Your task to perform on an android device: toggle priority inbox in the gmail app Image 0: 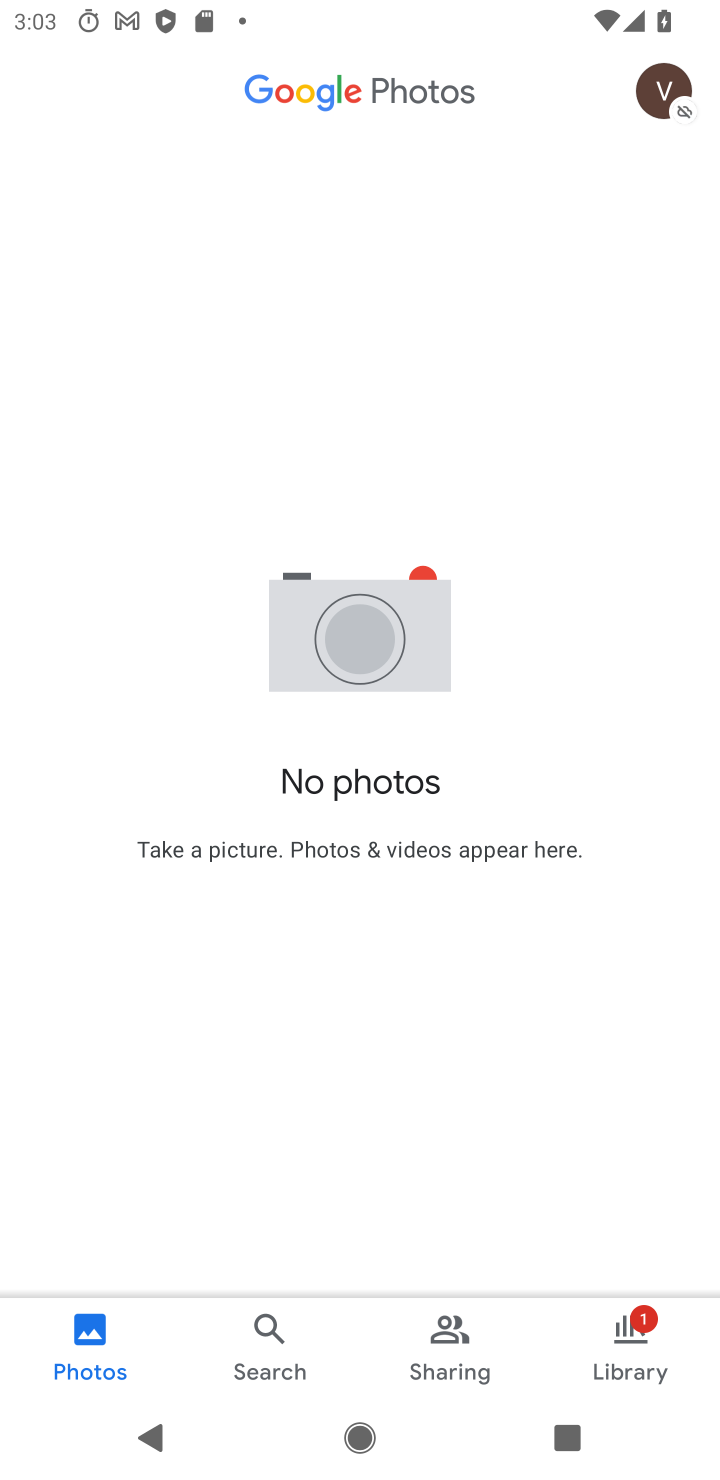
Step 0: press home button
Your task to perform on an android device: toggle priority inbox in the gmail app Image 1: 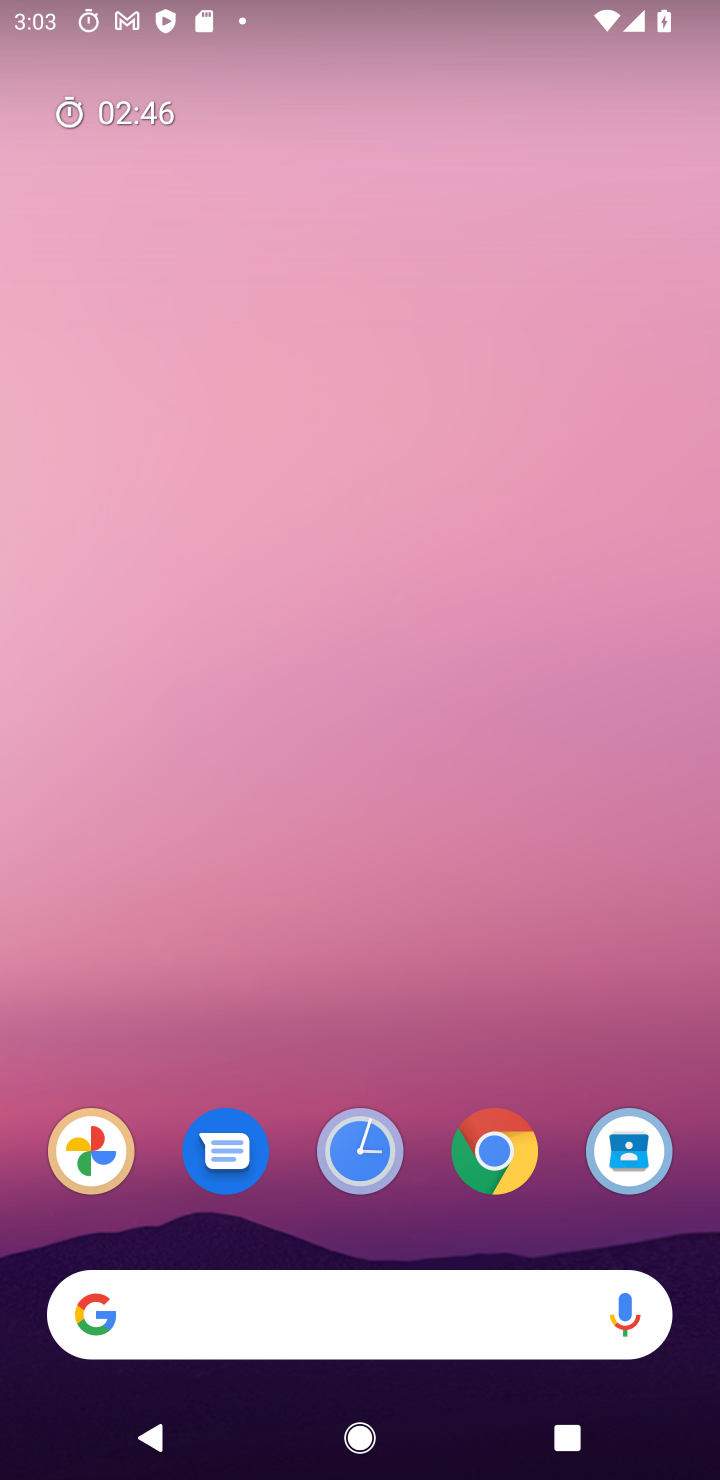
Step 1: drag from (517, 1063) to (303, 59)
Your task to perform on an android device: toggle priority inbox in the gmail app Image 2: 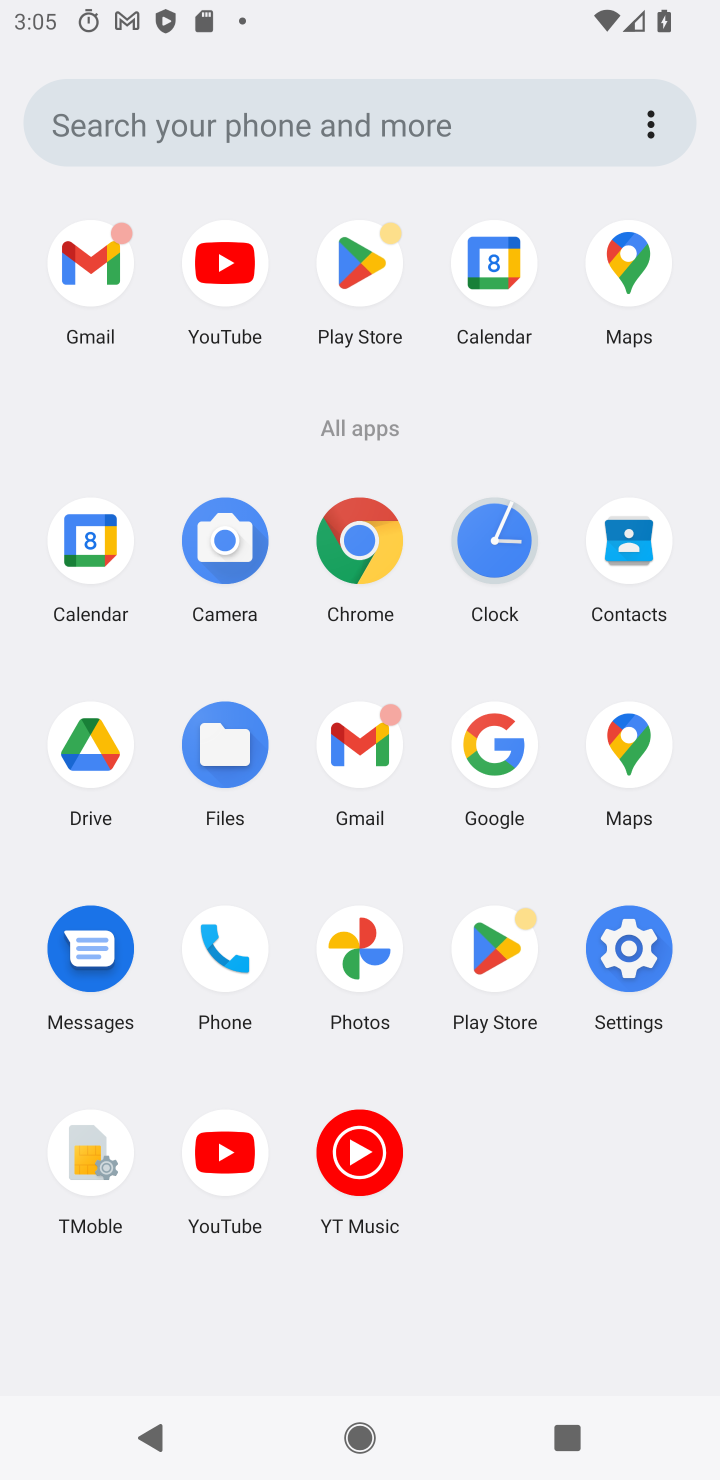
Step 2: click (362, 794)
Your task to perform on an android device: toggle priority inbox in the gmail app Image 3: 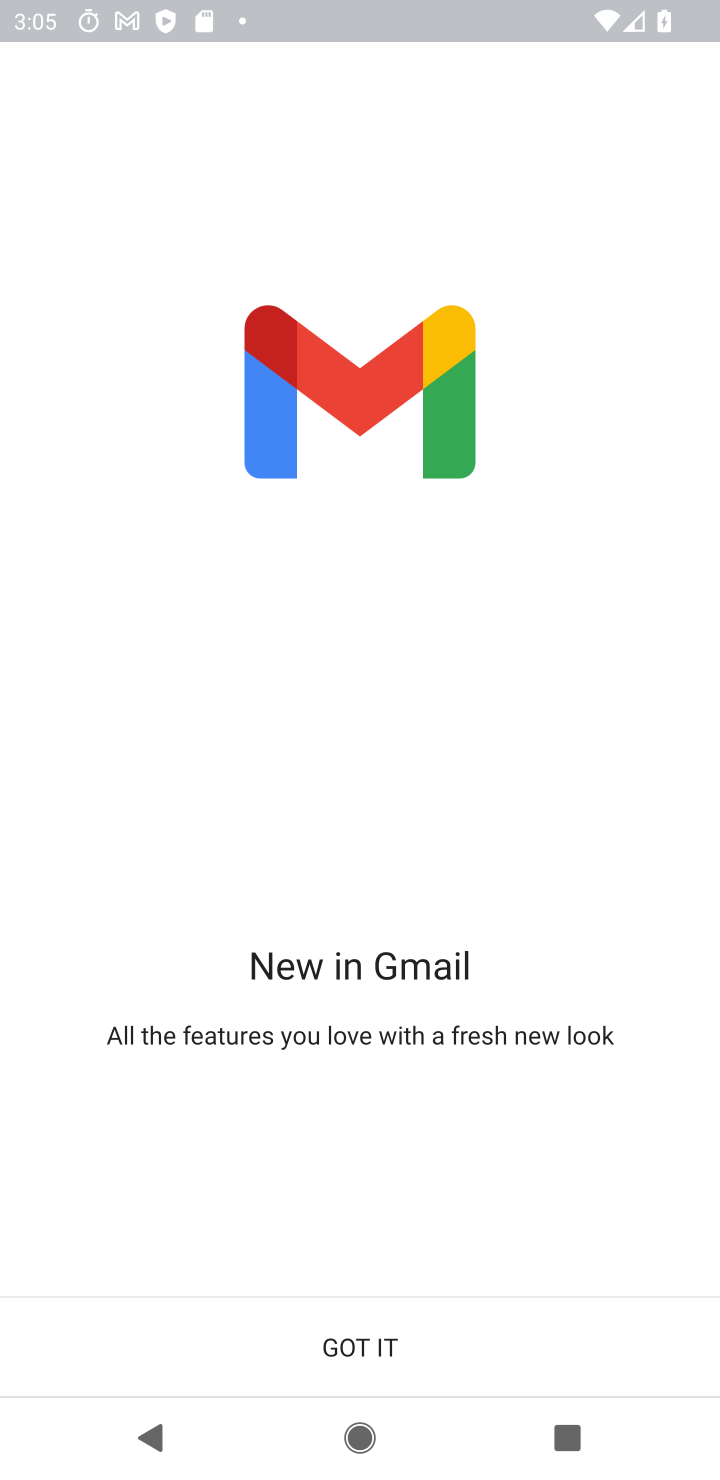
Step 3: click (354, 1366)
Your task to perform on an android device: toggle priority inbox in the gmail app Image 4: 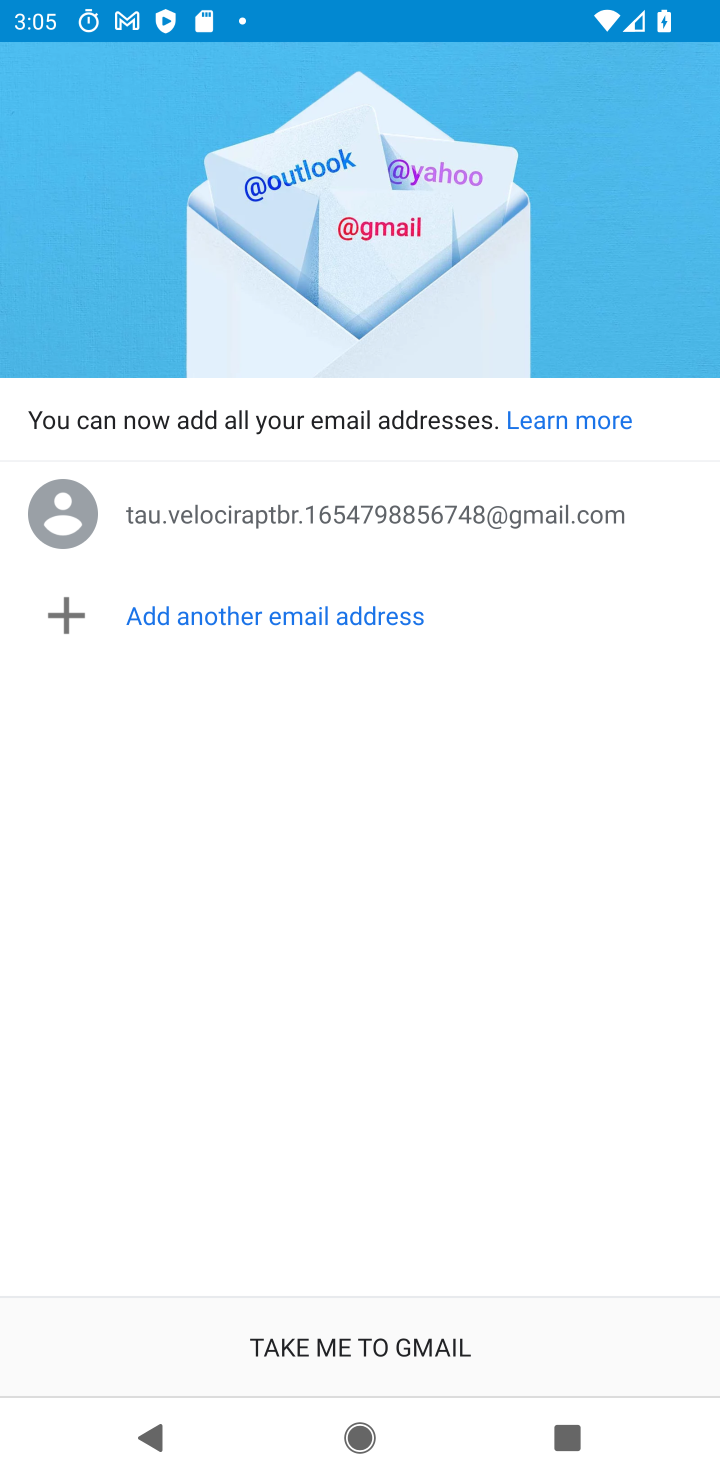
Step 4: click (354, 1366)
Your task to perform on an android device: toggle priority inbox in the gmail app Image 5: 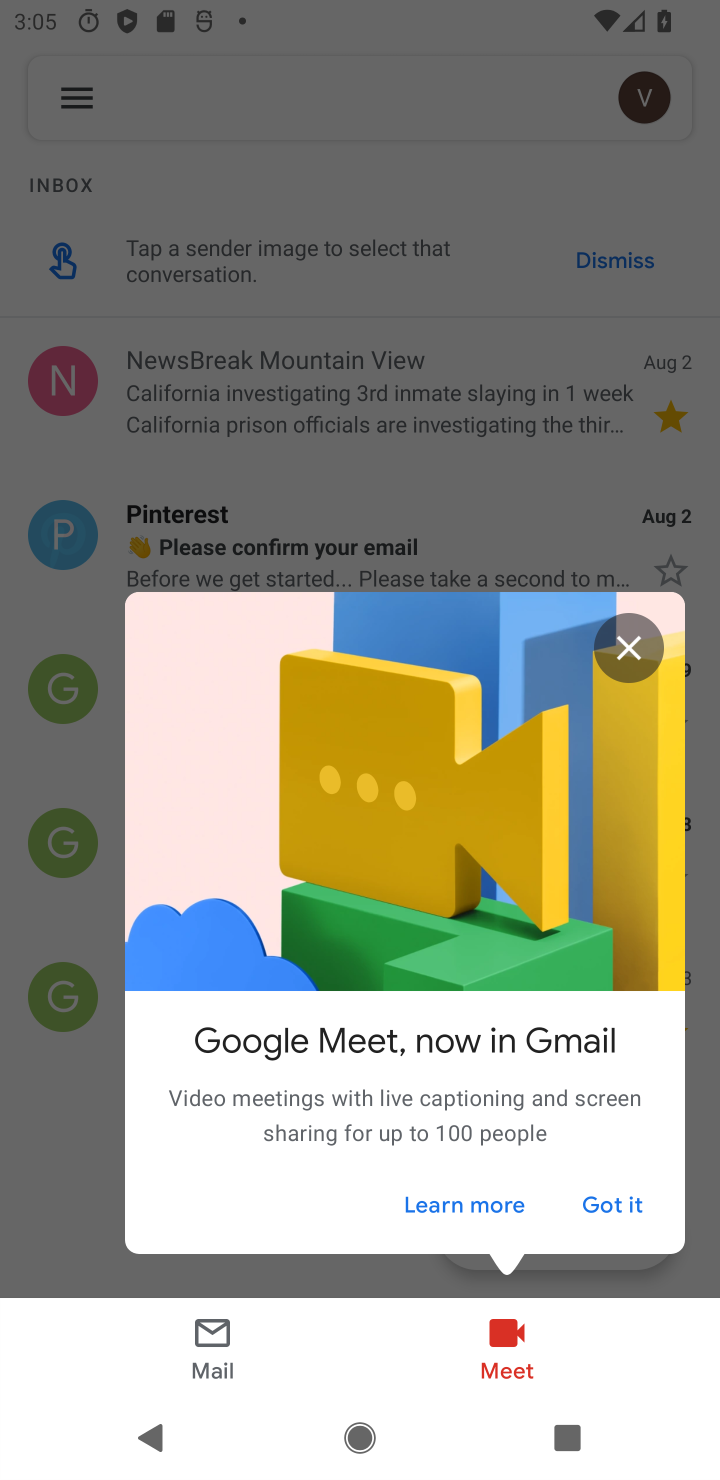
Step 5: click (609, 658)
Your task to perform on an android device: toggle priority inbox in the gmail app Image 6: 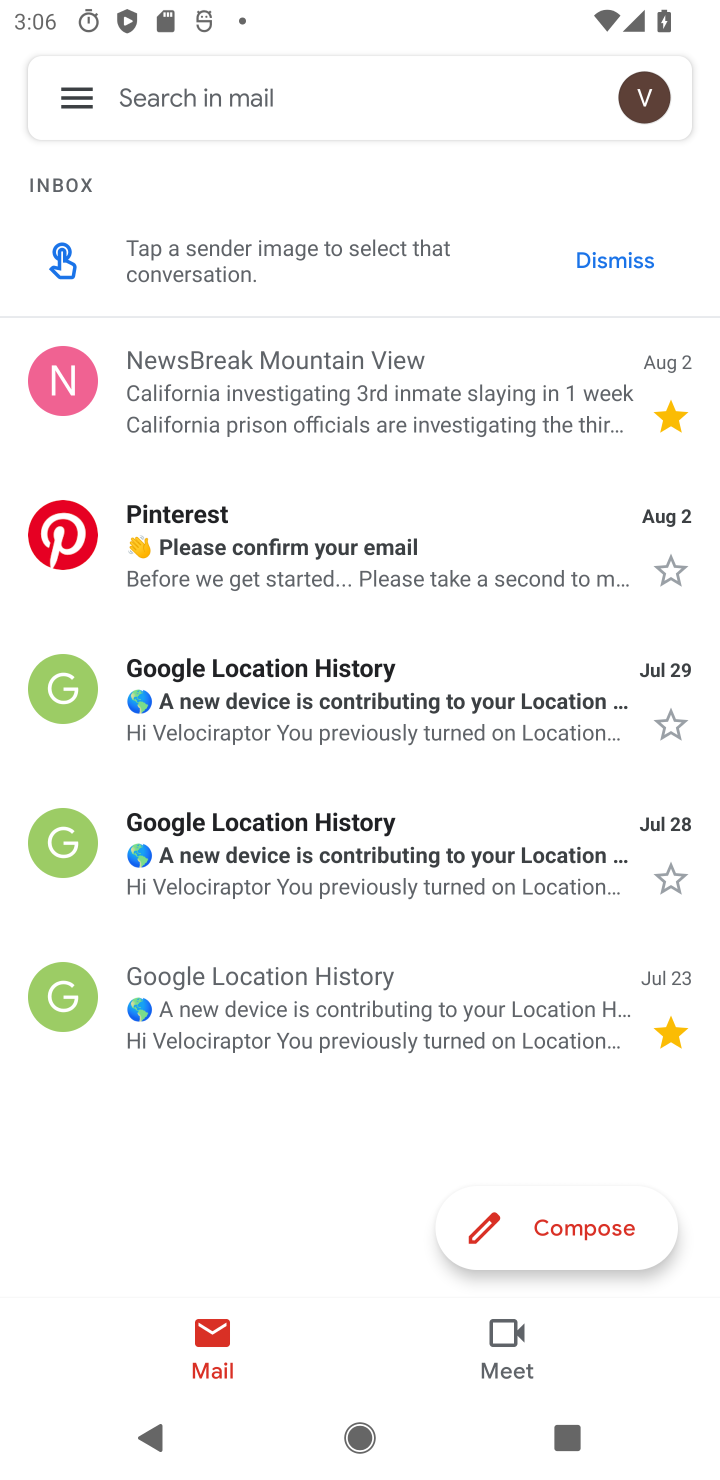
Step 6: click (85, 106)
Your task to perform on an android device: toggle priority inbox in the gmail app Image 7: 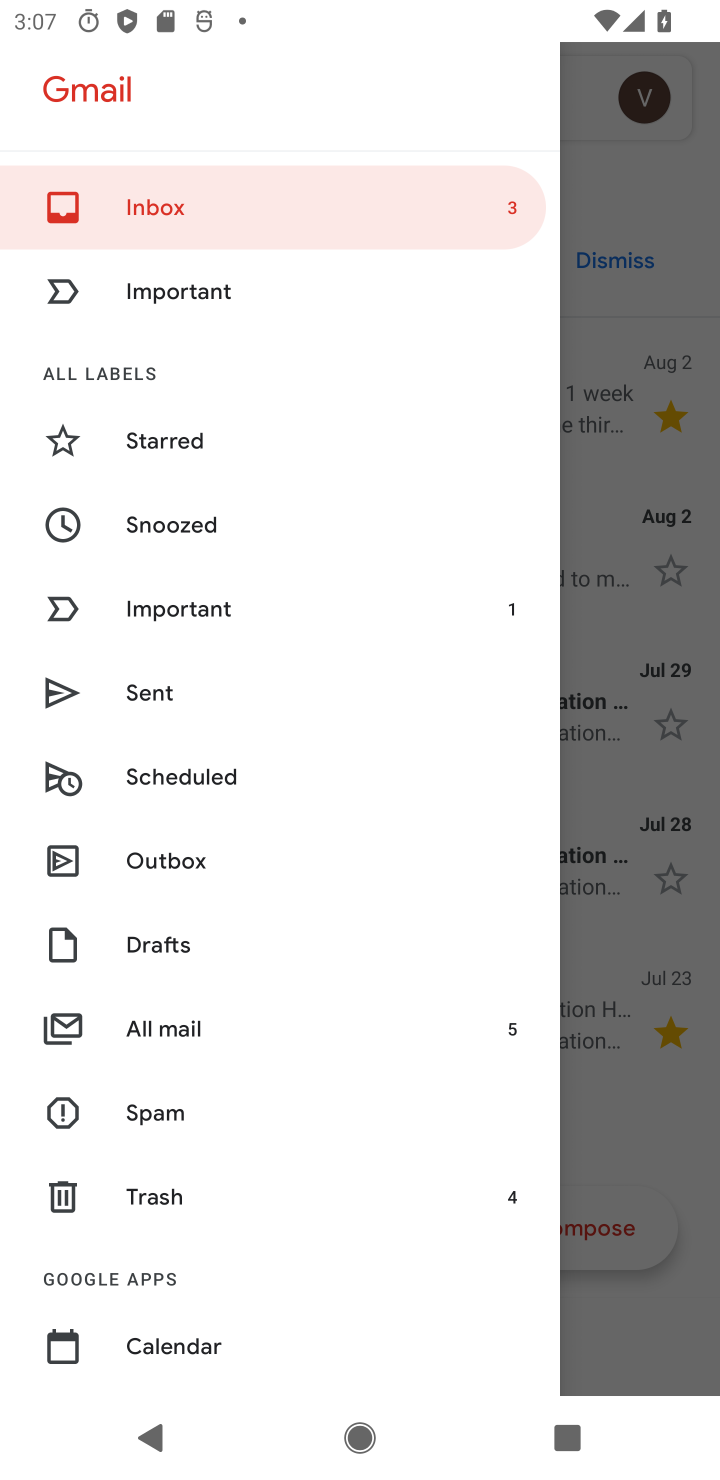
Step 7: drag from (170, 1207) to (248, 435)
Your task to perform on an android device: toggle priority inbox in the gmail app Image 8: 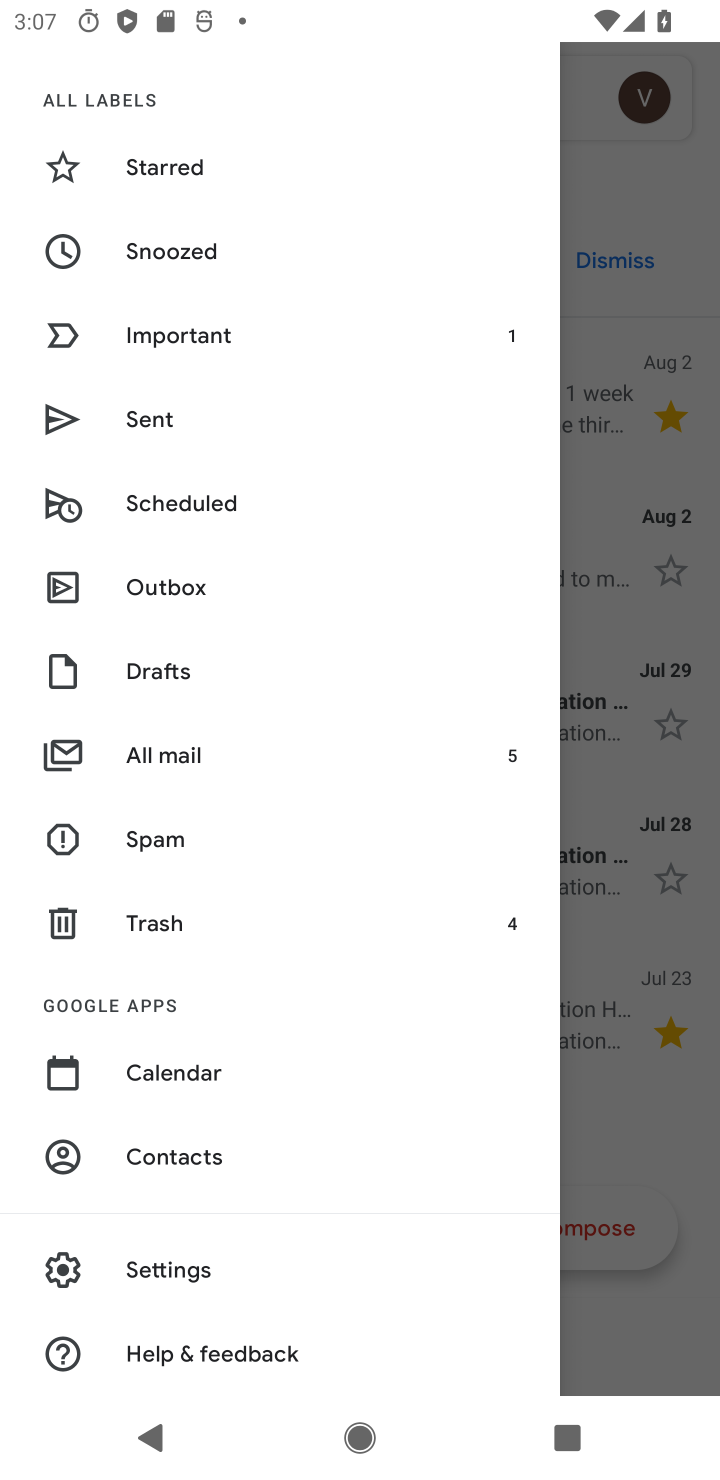
Step 8: click (145, 1256)
Your task to perform on an android device: toggle priority inbox in the gmail app Image 9: 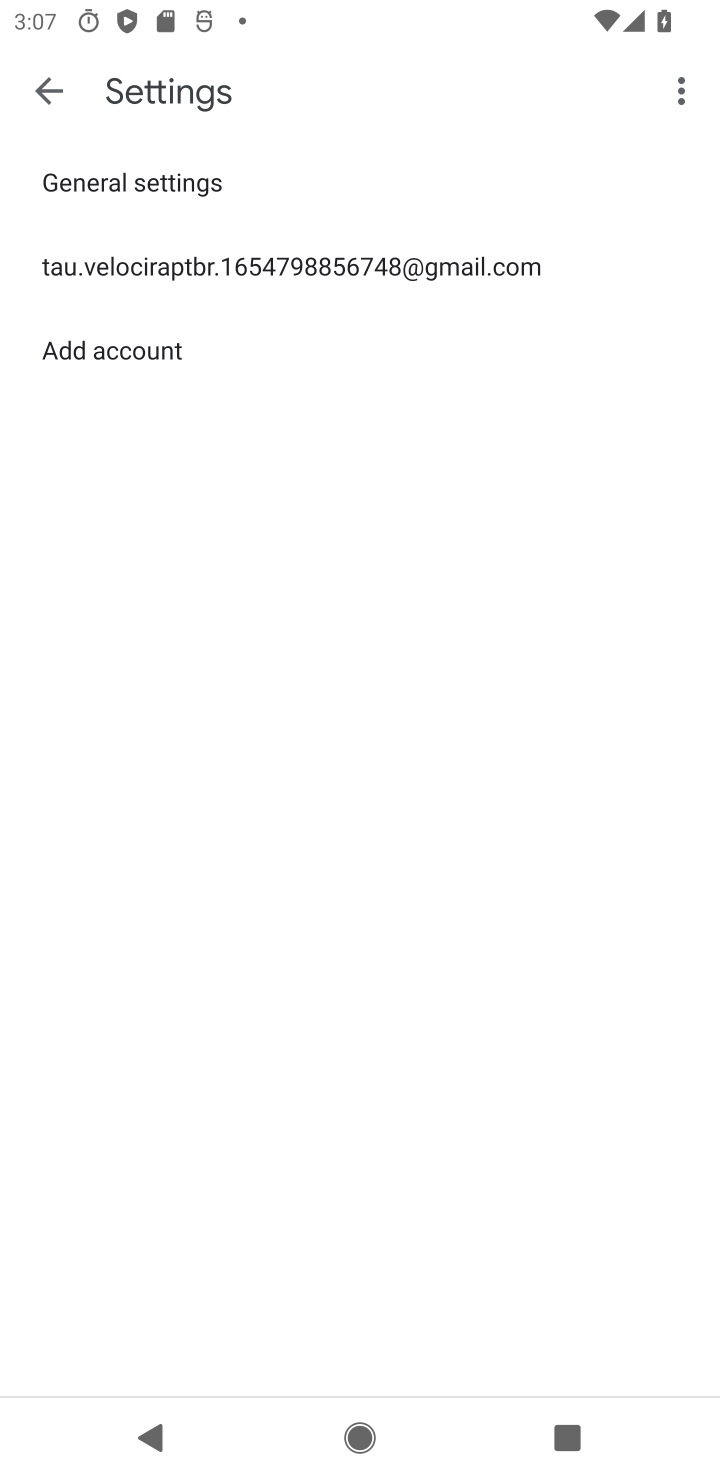
Step 9: click (162, 274)
Your task to perform on an android device: toggle priority inbox in the gmail app Image 10: 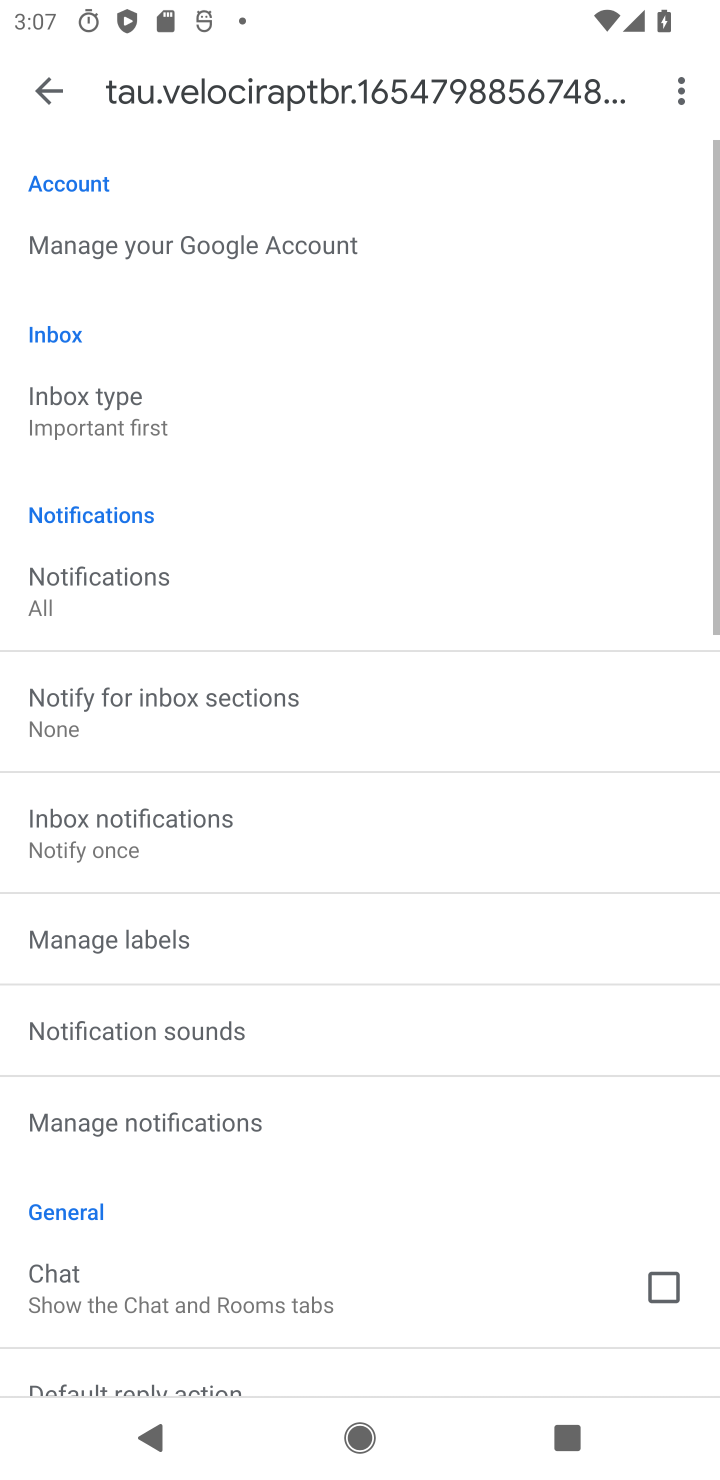
Step 10: click (87, 389)
Your task to perform on an android device: toggle priority inbox in the gmail app Image 11: 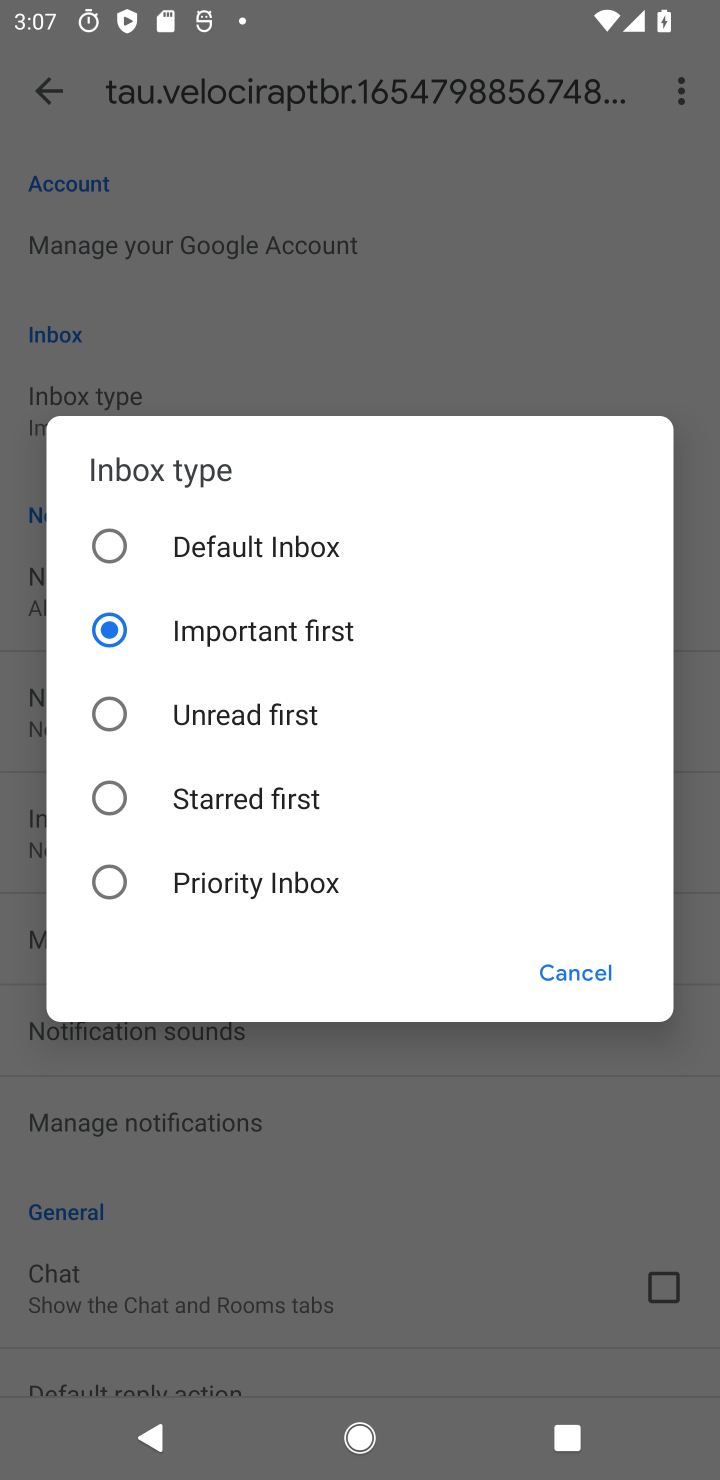
Step 11: click (160, 884)
Your task to perform on an android device: toggle priority inbox in the gmail app Image 12: 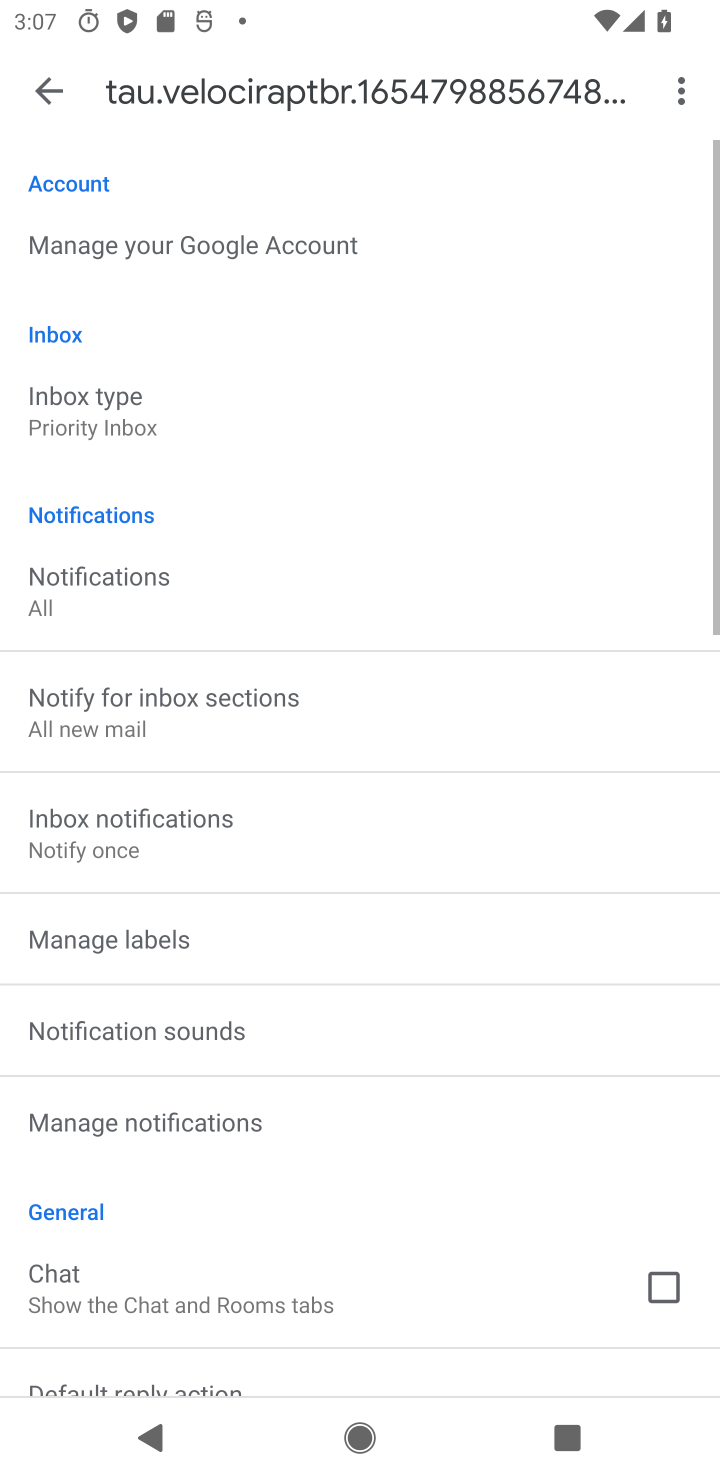
Step 12: task complete